Your task to perform on an android device: see sites visited before in the chrome app Image 0: 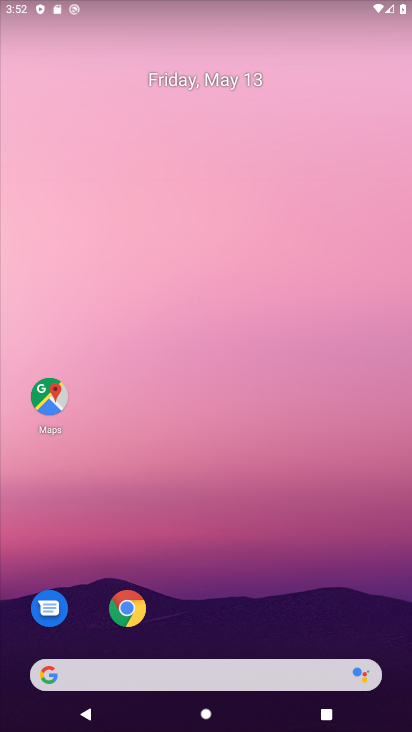
Step 0: drag from (212, 653) to (135, 10)
Your task to perform on an android device: see sites visited before in the chrome app Image 1: 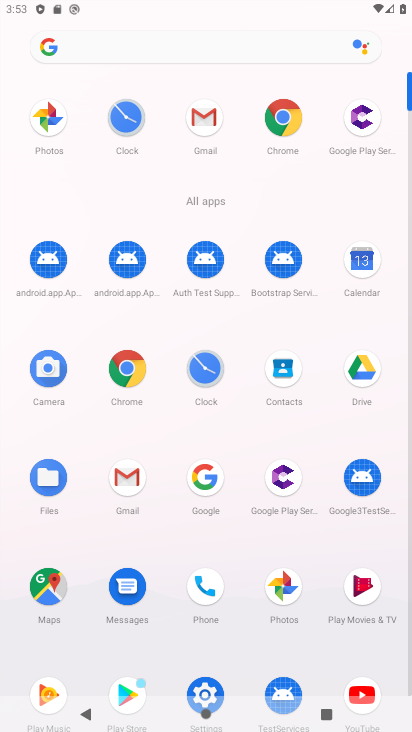
Step 1: click (120, 363)
Your task to perform on an android device: see sites visited before in the chrome app Image 2: 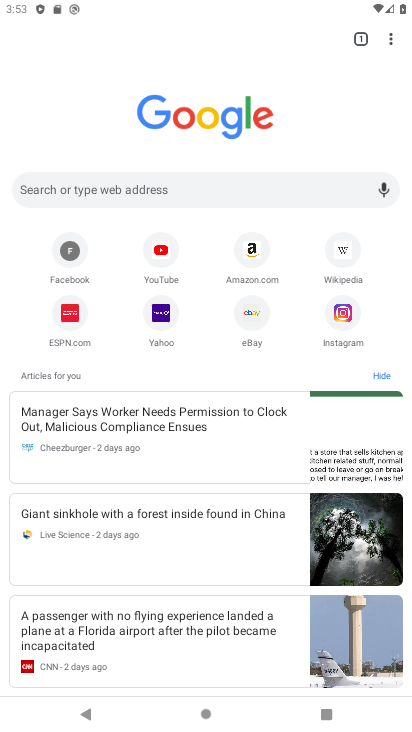
Step 2: task complete